Your task to perform on an android device: Open Yahoo.com Image 0: 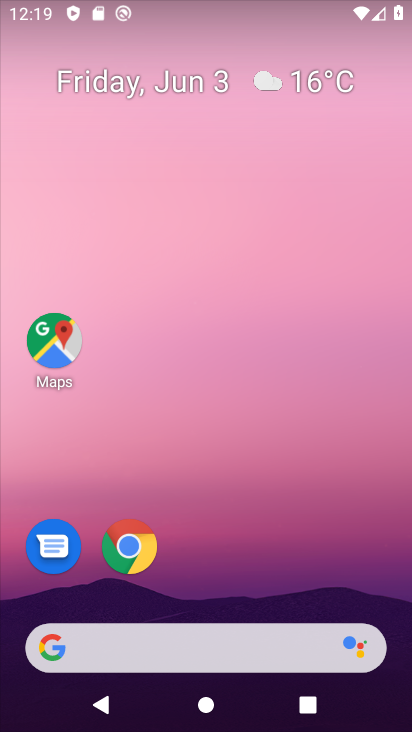
Step 0: click (133, 546)
Your task to perform on an android device: Open Yahoo.com Image 1: 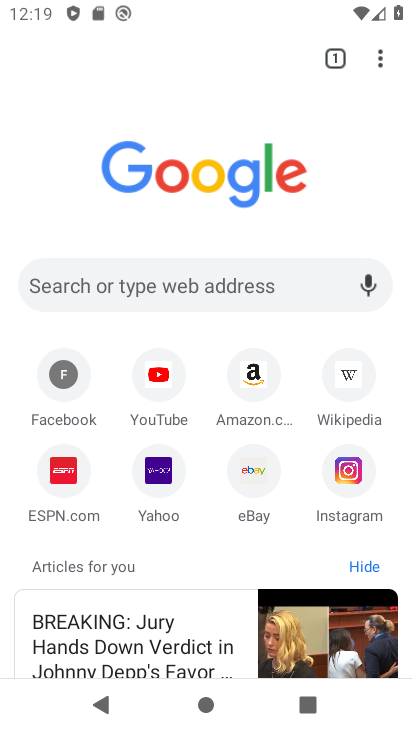
Step 1: click (163, 470)
Your task to perform on an android device: Open Yahoo.com Image 2: 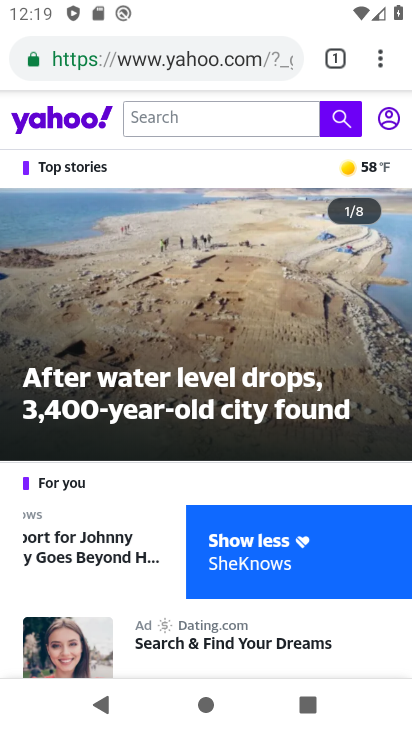
Step 2: task complete